Your task to perform on an android device: Open battery settings Image 0: 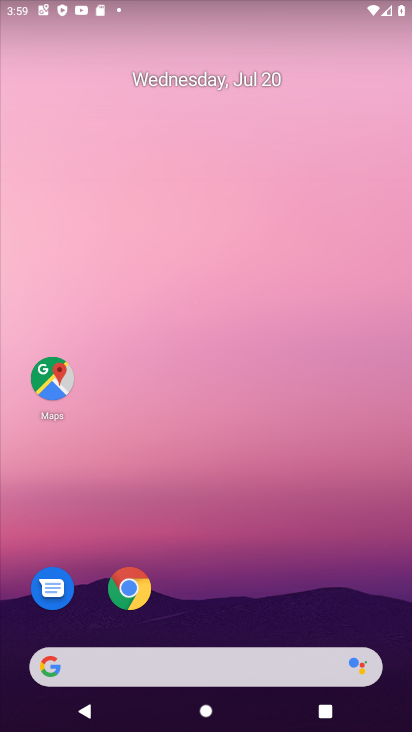
Step 0: drag from (251, 488) to (146, 25)
Your task to perform on an android device: Open battery settings Image 1: 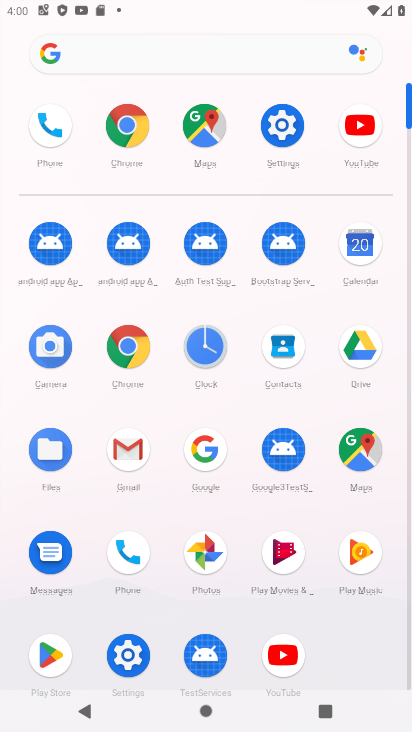
Step 1: click (264, 120)
Your task to perform on an android device: Open battery settings Image 2: 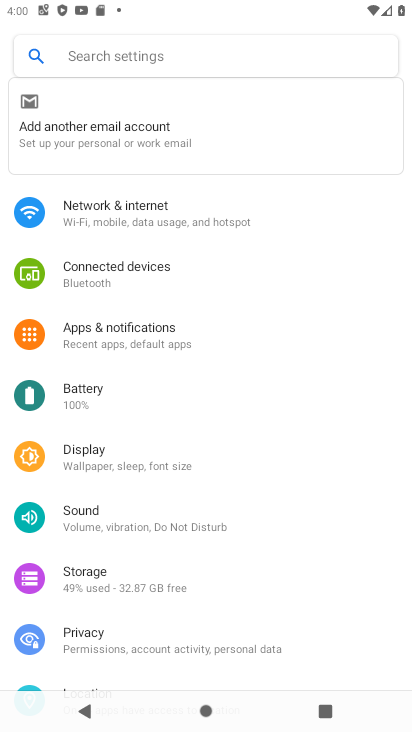
Step 2: click (110, 409)
Your task to perform on an android device: Open battery settings Image 3: 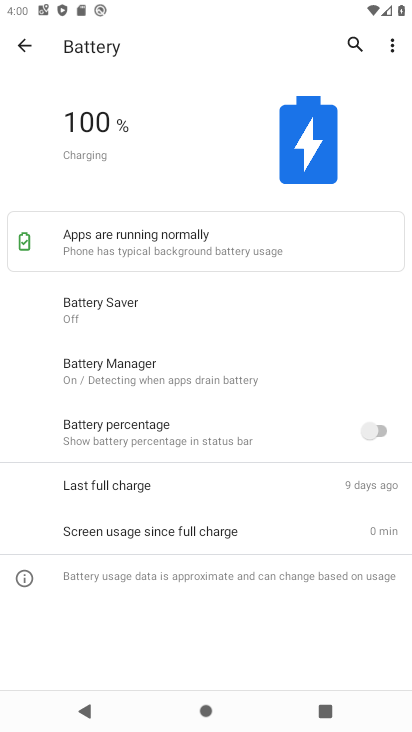
Step 3: task complete